Your task to perform on an android device: Open settings on Google Maps Image 0: 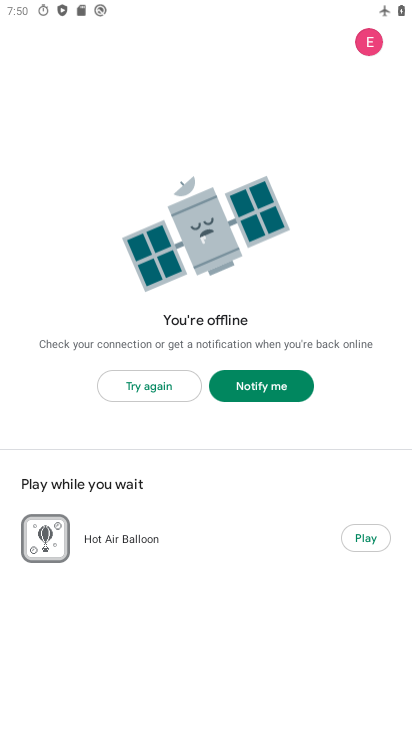
Step 0: press home button
Your task to perform on an android device: Open settings on Google Maps Image 1: 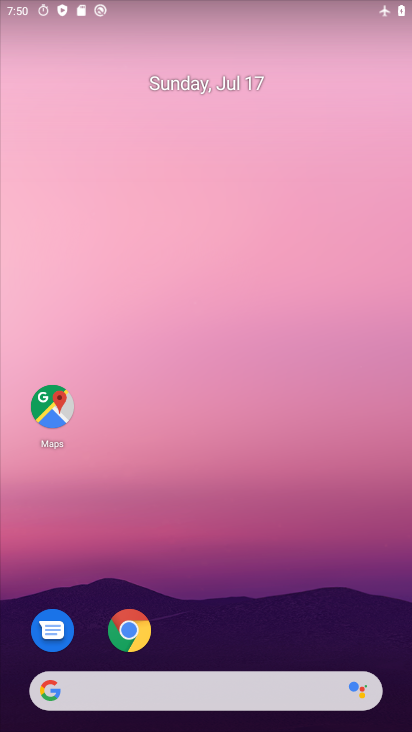
Step 1: drag from (252, 660) to (236, 84)
Your task to perform on an android device: Open settings on Google Maps Image 2: 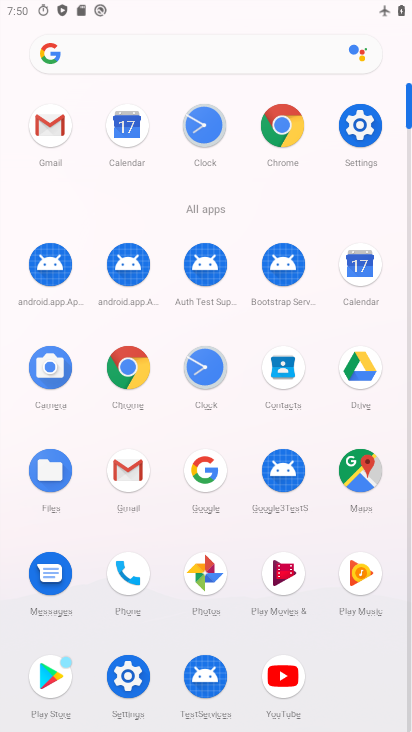
Step 2: click (357, 469)
Your task to perform on an android device: Open settings on Google Maps Image 3: 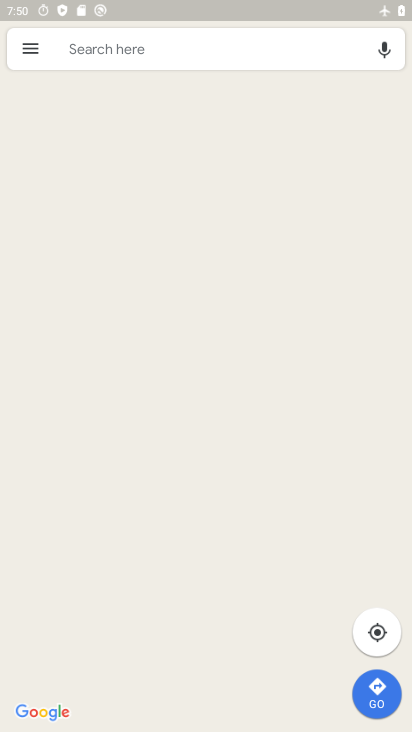
Step 3: click (29, 47)
Your task to perform on an android device: Open settings on Google Maps Image 4: 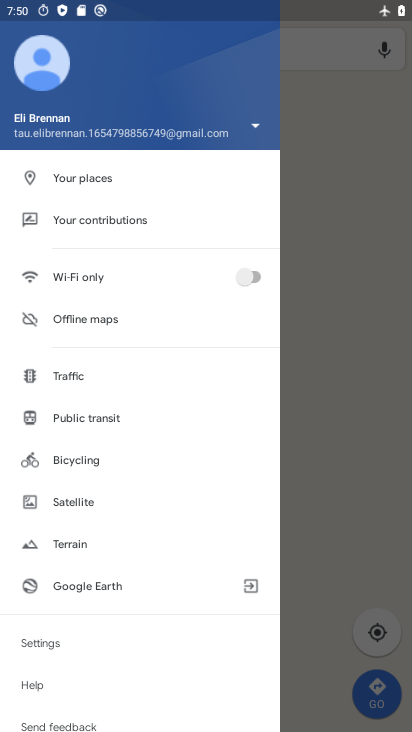
Step 4: drag from (121, 661) to (195, 165)
Your task to perform on an android device: Open settings on Google Maps Image 5: 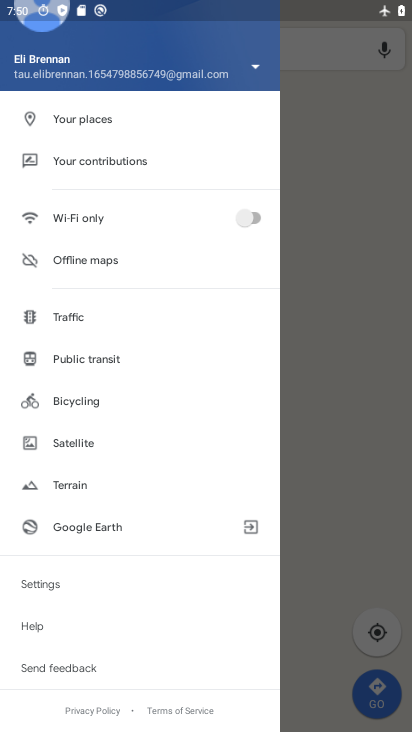
Step 5: click (62, 580)
Your task to perform on an android device: Open settings on Google Maps Image 6: 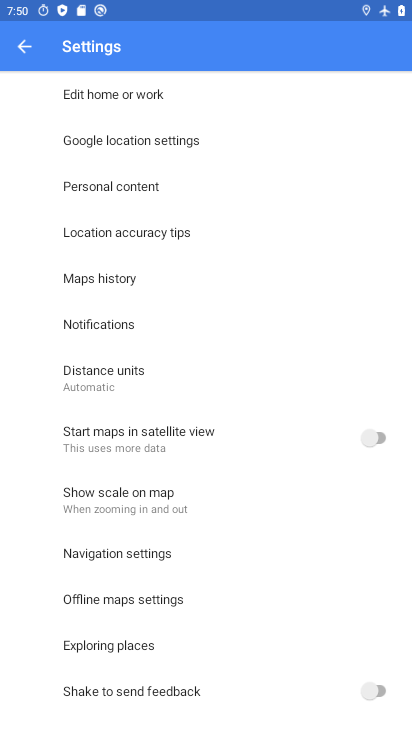
Step 6: task complete